Your task to perform on an android device: make emails show in primary in the gmail app Image 0: 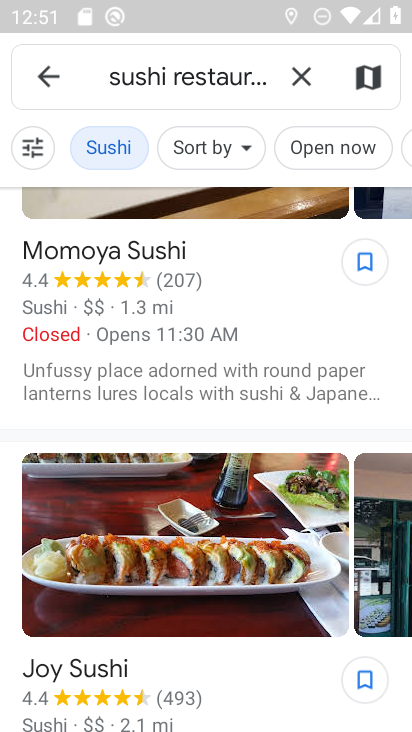
Step 0: press home button
Your task to perform on an android device: make emails show in primary in the gmail app Image 1: 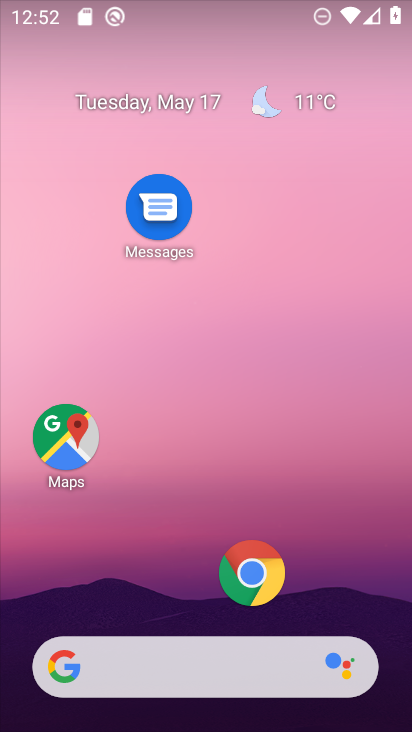
Step 1: drag from (204, 584) to (216, 43)
Your task to perform on an android device: make emails show in primary in the gmail app Image 2: 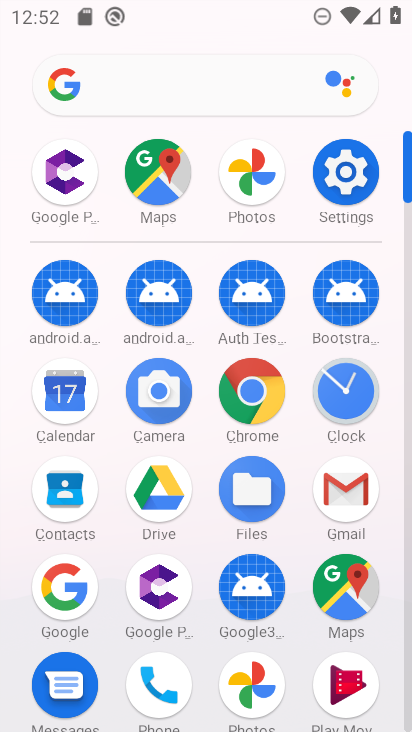
Step 2: click (342, 481)
Your task to perform on an android device: make emails show in primary in the gmail app Image 3: 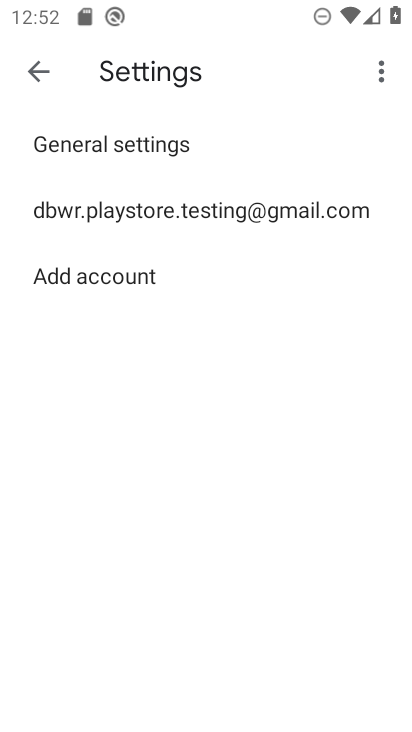
Step 3: click (218, 198)
Your task to perform on an android device: make emails show in primary in the gmail app Image 4: 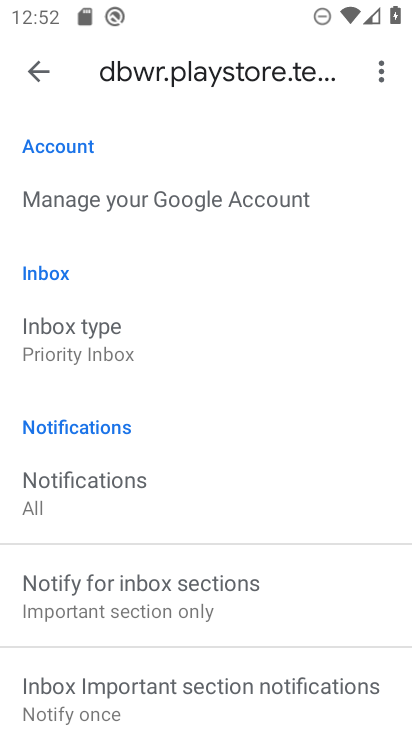
Step 4: click (145, 338)
Your task to perform on an android device: make emails show in primary in the gmail app Image 5: 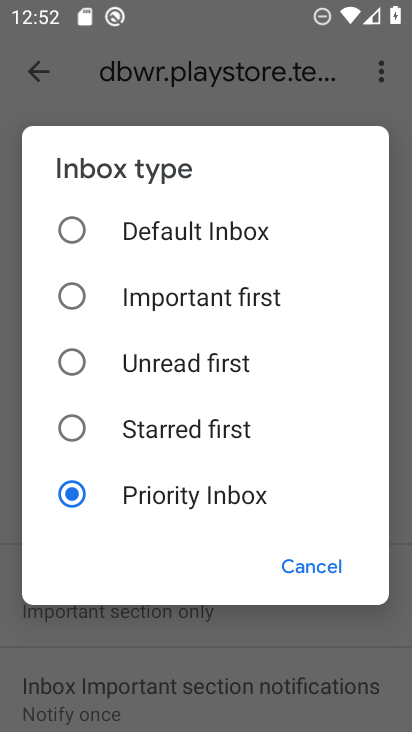
Step 5: click (87, 231)
Your task to perform on an android device: make emails show in primary in the gmail app Image 6: 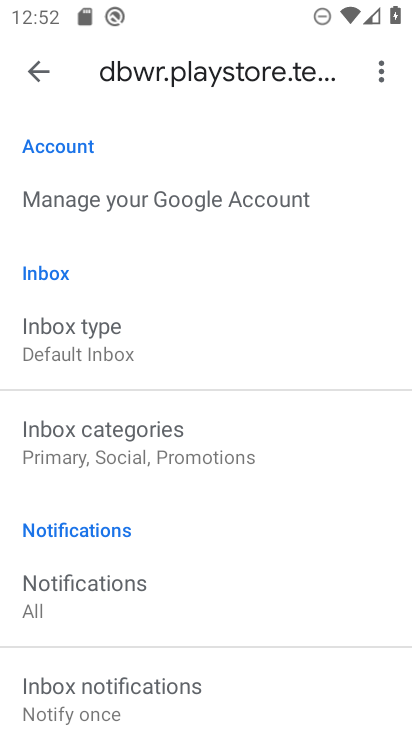
Step 6: click (156, 335)
Your task to perform on an android device: make emails show in primary in the gmail app Image 7: 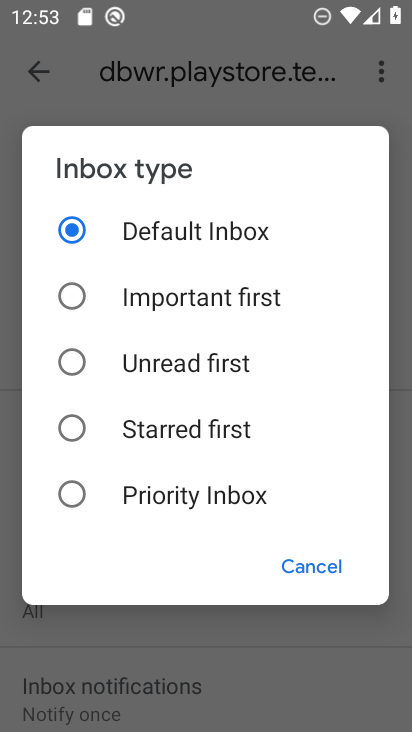
Step 7: task complete